Your task to perform on an android device: Do I have any events this weekend? Image 0: 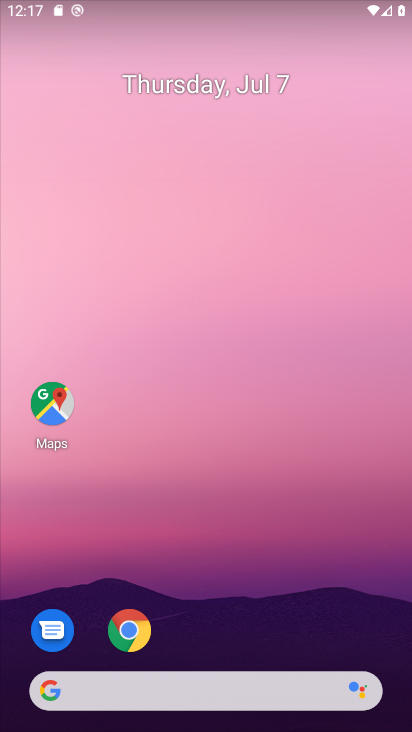
Step 0: drag from (208, 617) to (195, 221)
Your task to perform on an android device: Do I have any events this weekend? Image 1: 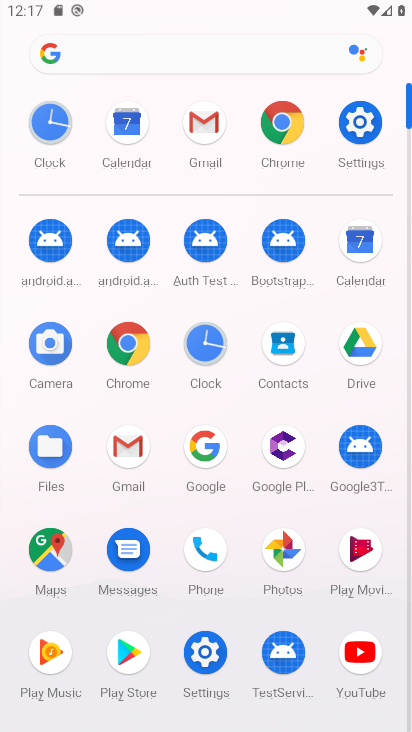
Step 1: click (364, 243)
Your task to perform on an android device: Do I have any events this weekend? Image 2: 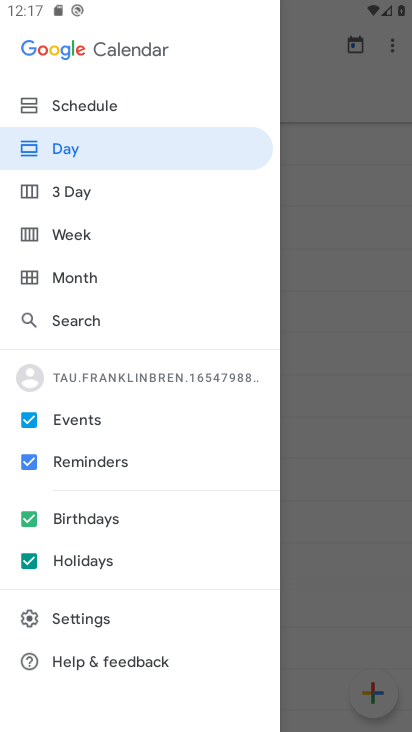
Step 2: click (108, 270)
Your task to perform on an android device: Do I have any events this weekend? Image 3: 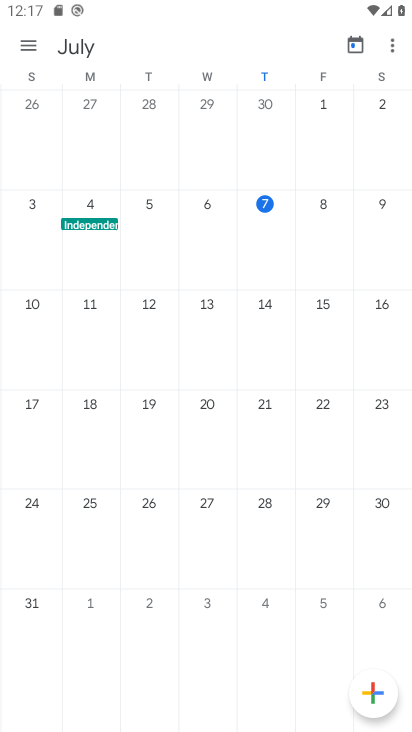
Step 3: task complete